Your task to perform on an android device: check the backup settings in the google photos Image 0: 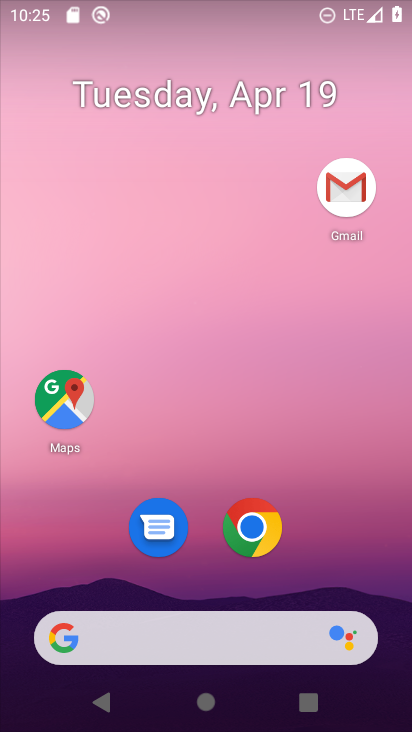
Step 0: drag from (366, 541) to (379, 114)
Your task to perform on an android device: check the backup settings in the google photos Image 1: 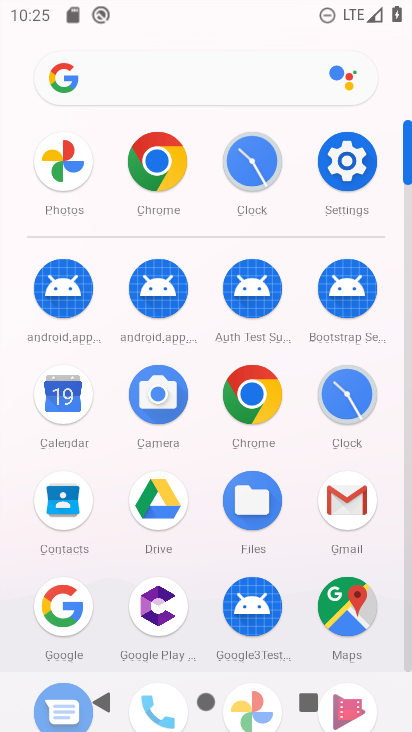
Step 1: drag from (208, 553) to (214, 337)
Your task to perform on an android device: check the backup settings in the google photos Image 2: 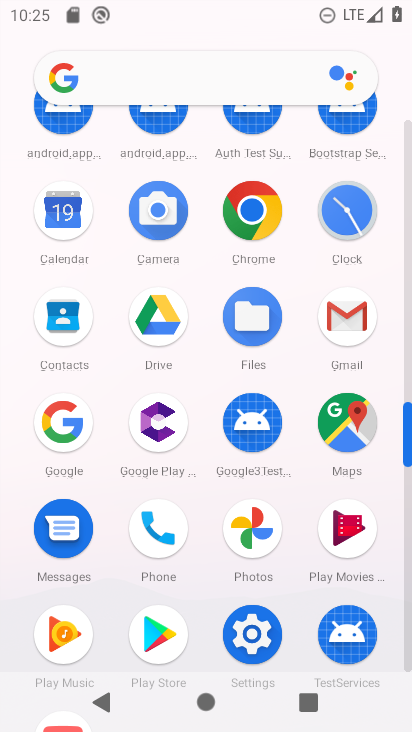
Step 2: click (268, 517)
Your task to perform on an android device: check the backup settings in the google photos Image 3: 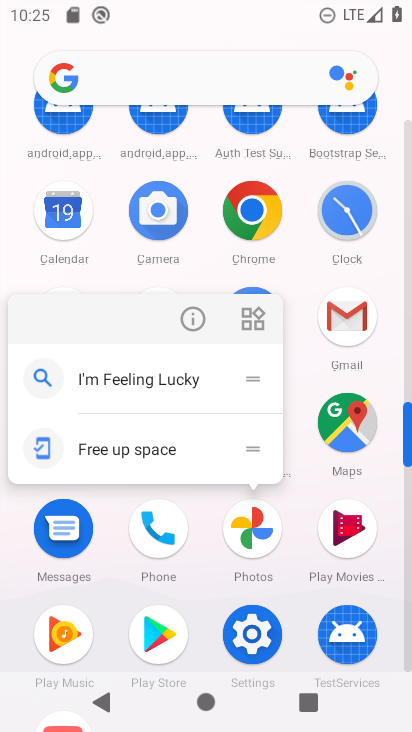
Step 3: click (259, 530)
Your task to perform on an android device: check the backup settings in the google photos Image 4: 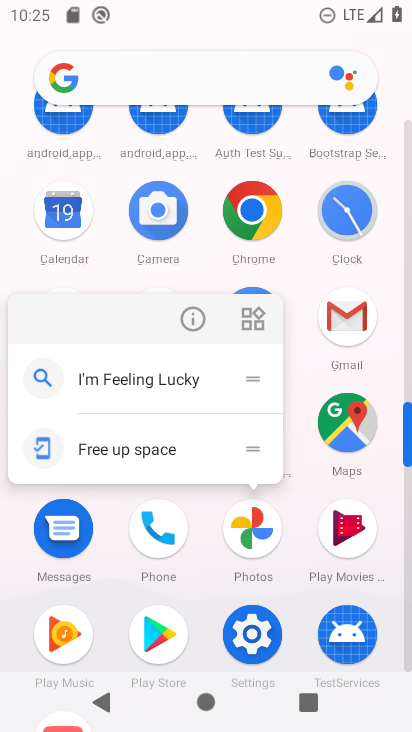
Step 4: click (259, 530)
Your task to perform on an android device: check the backup settings in the google photos Image 5: 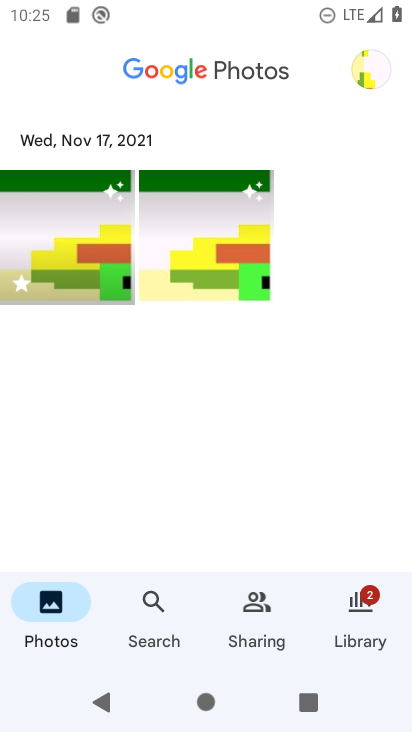
Step 5: click (380, 72)
Your task to perform on an android device: check the backup settings in the google photos Image 6: 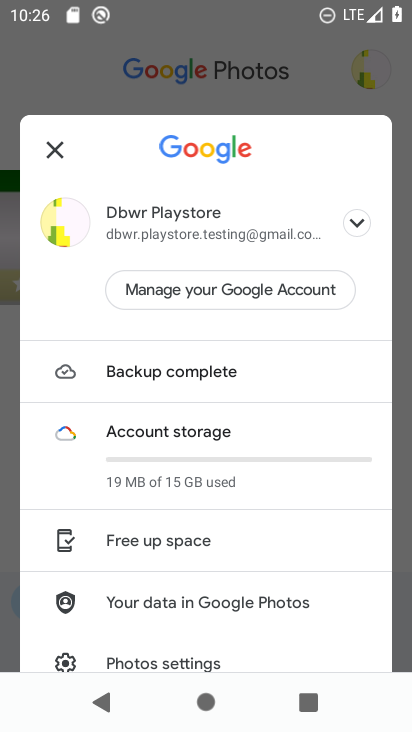
Step 6: drag from (321, 628) to (325, 346)
Your task to perform on an android device: check the backup settings in the google photos Image 7: 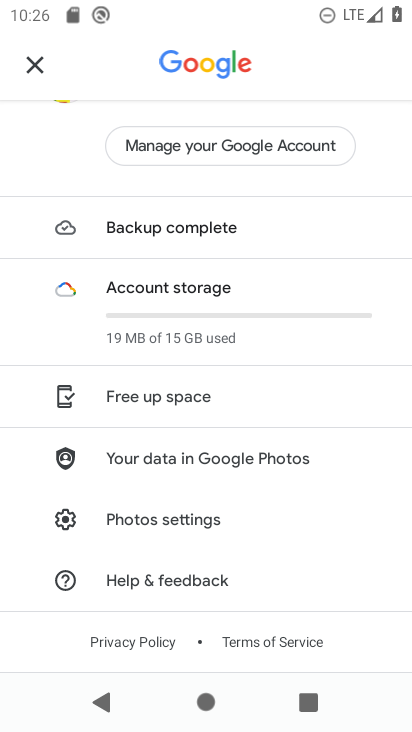
Step 7: click (193, 519)
Your task to perform on an android device: check the backup settings in the google photos Image 8: 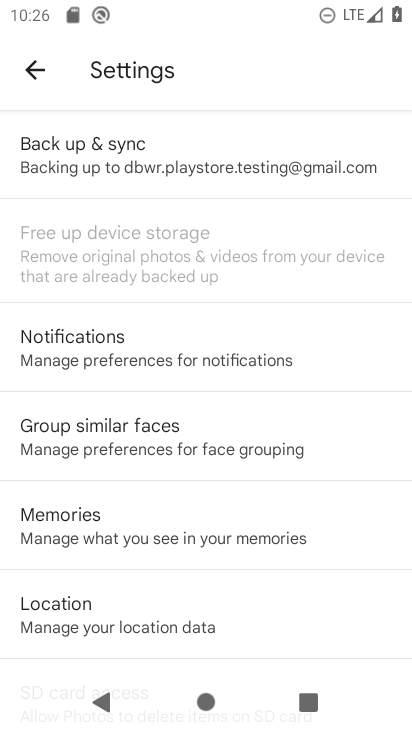
Step 8: click (176, 158)
Your task to perform on an android device: check the backup settings in the google photos Image 9: 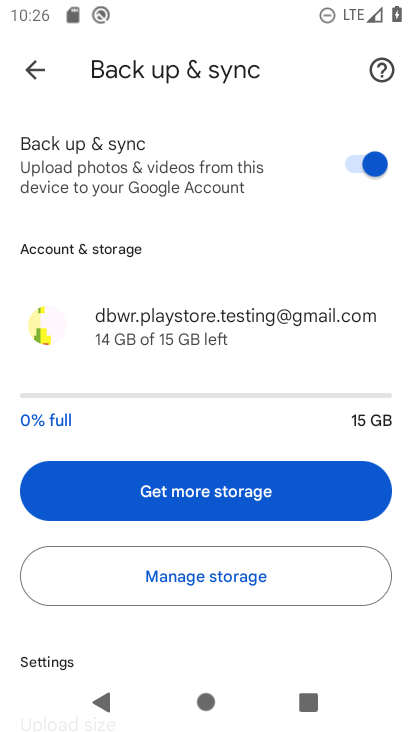
Step 9: task complete